Your task to perform on an android device: Go to network settings Image 0: 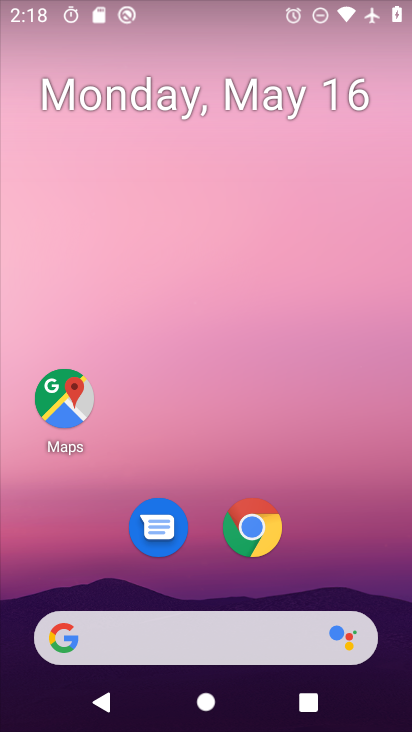
Step 0: drag from (183, 635) to (344, 175)
Your task to perform on an android device: Go to network settings Image 1: 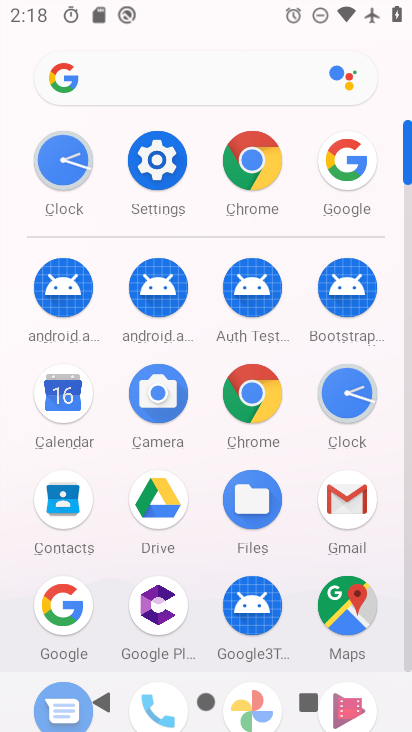
Step 1: click (158, 168)
Your task to perform on an android device: Go to network settings Image 2: 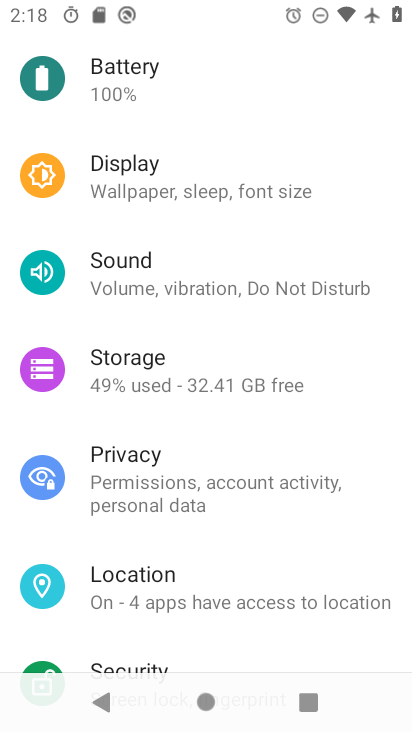
Step 2: drag from (295, 130) to (191, 594)
Your task to perform on an android device: Go to network settings Image 3: 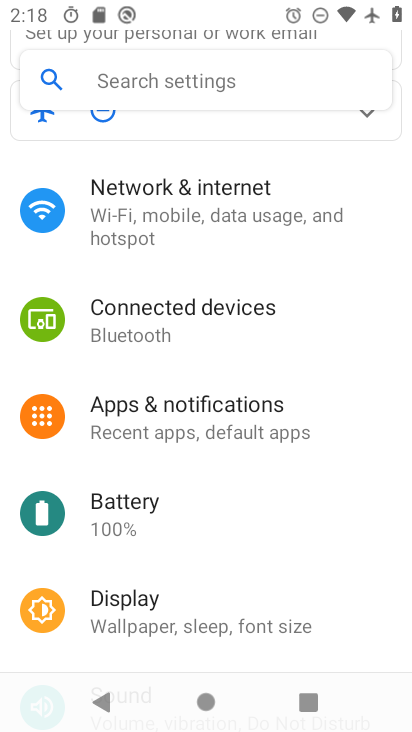
Step 3: click (230, 207)
Your task to perform on an android device: Go to network settings Image 4: 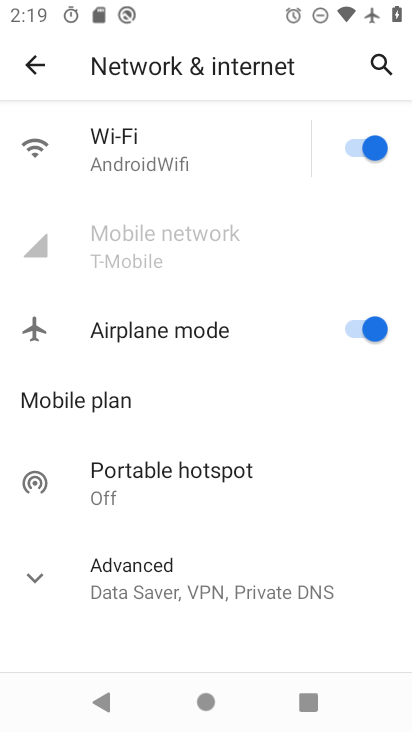
Step 4: task complete